Your task to perform on an android device: toggle data saver in the chrome app Image 0: 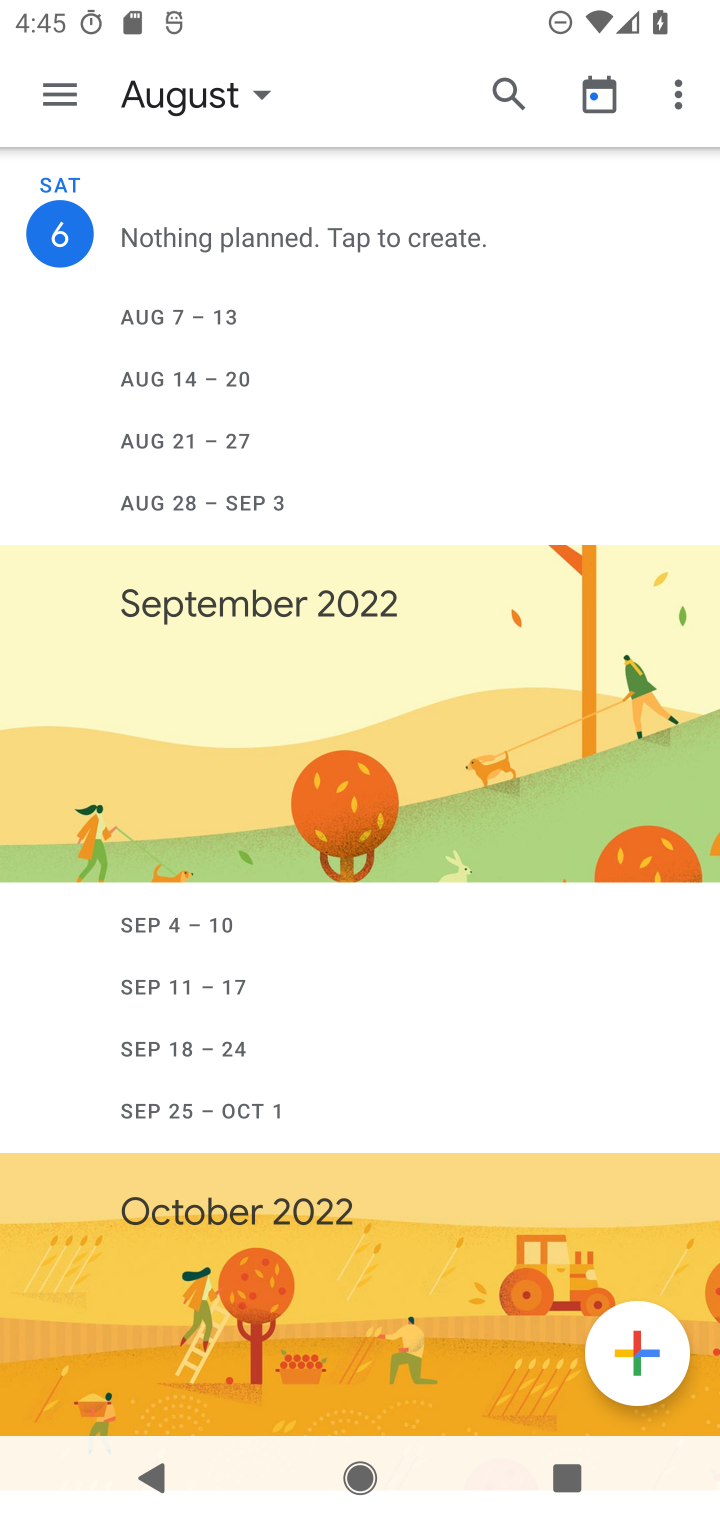
Step 0: press home button
Your task to perform on an android device: toggle data saver in the chrome app Image 1: 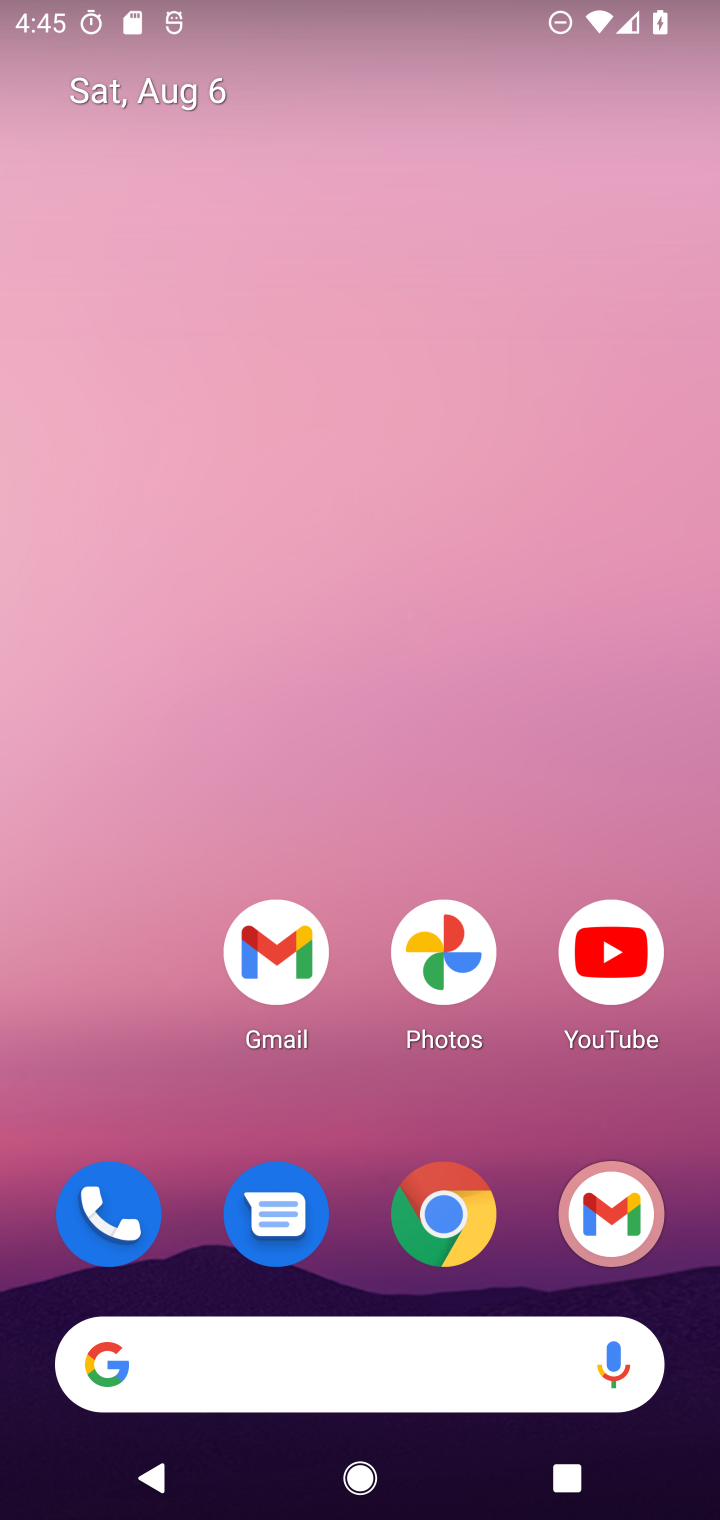
Step 1: click (449, 1201)
Your task to perform on an android device: toggle data saver in the chrome app Image 2: 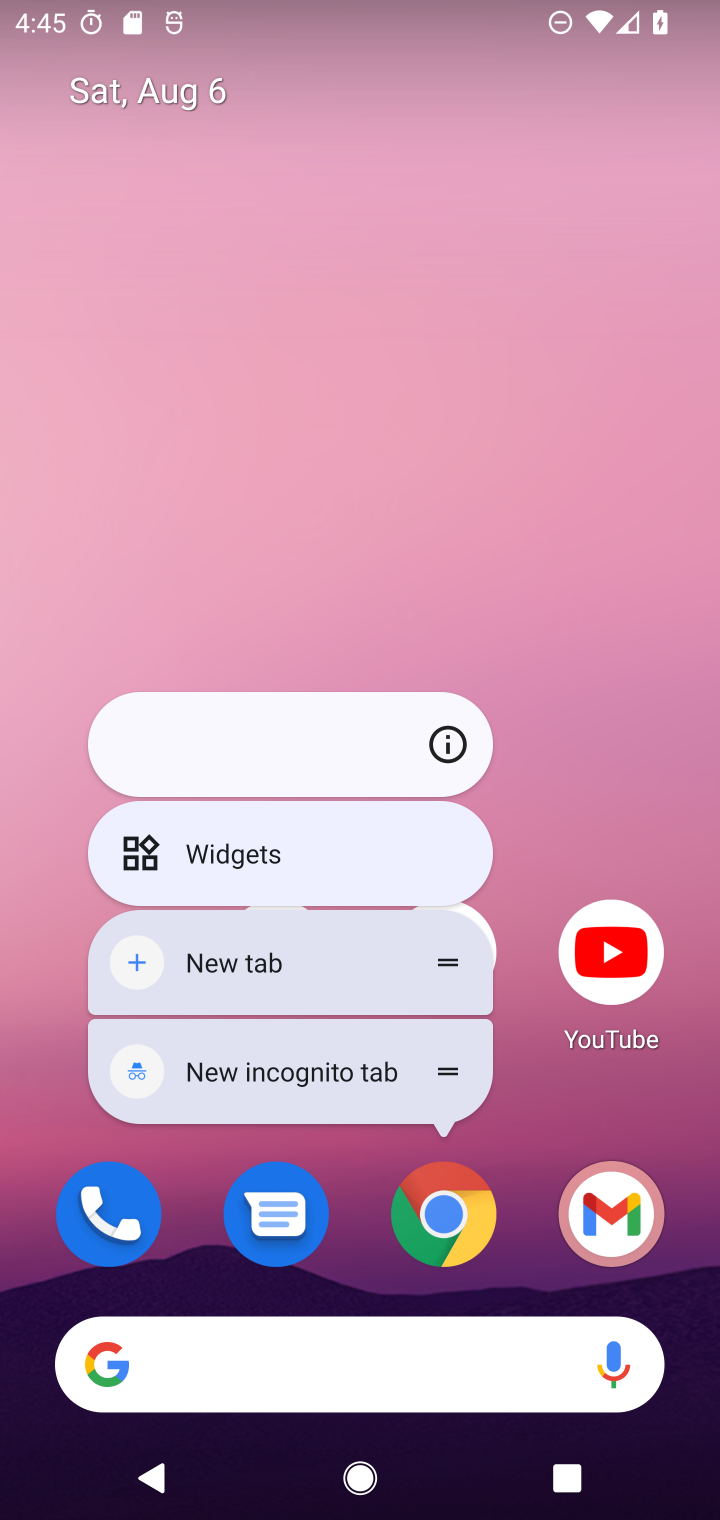
Step 2: click (434, 1225)
Your task to perform on an android device: toggle data saver in the chrome app Image 3: 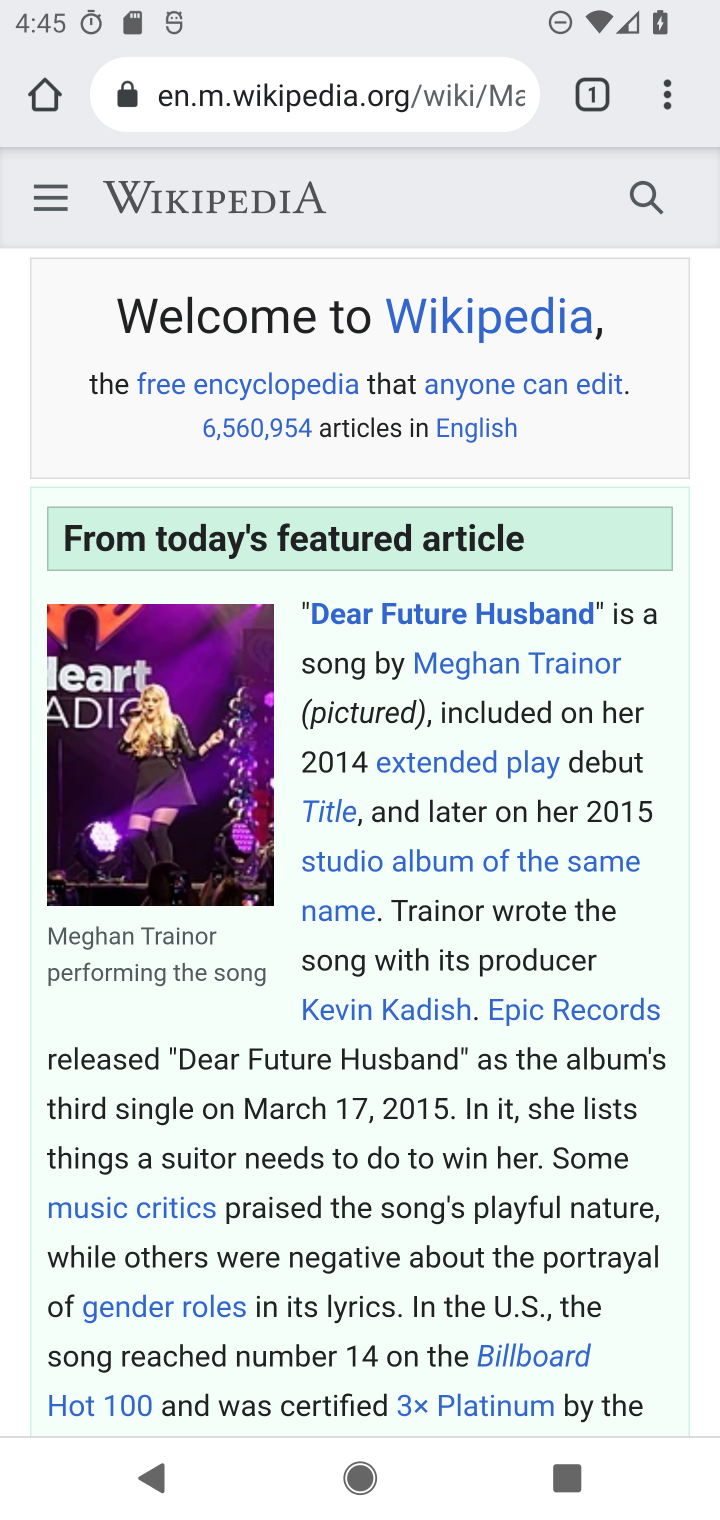
Step 3: click (660, 89)
Your task to perform on an android device: toggle data saver in the chrome app Image 4: 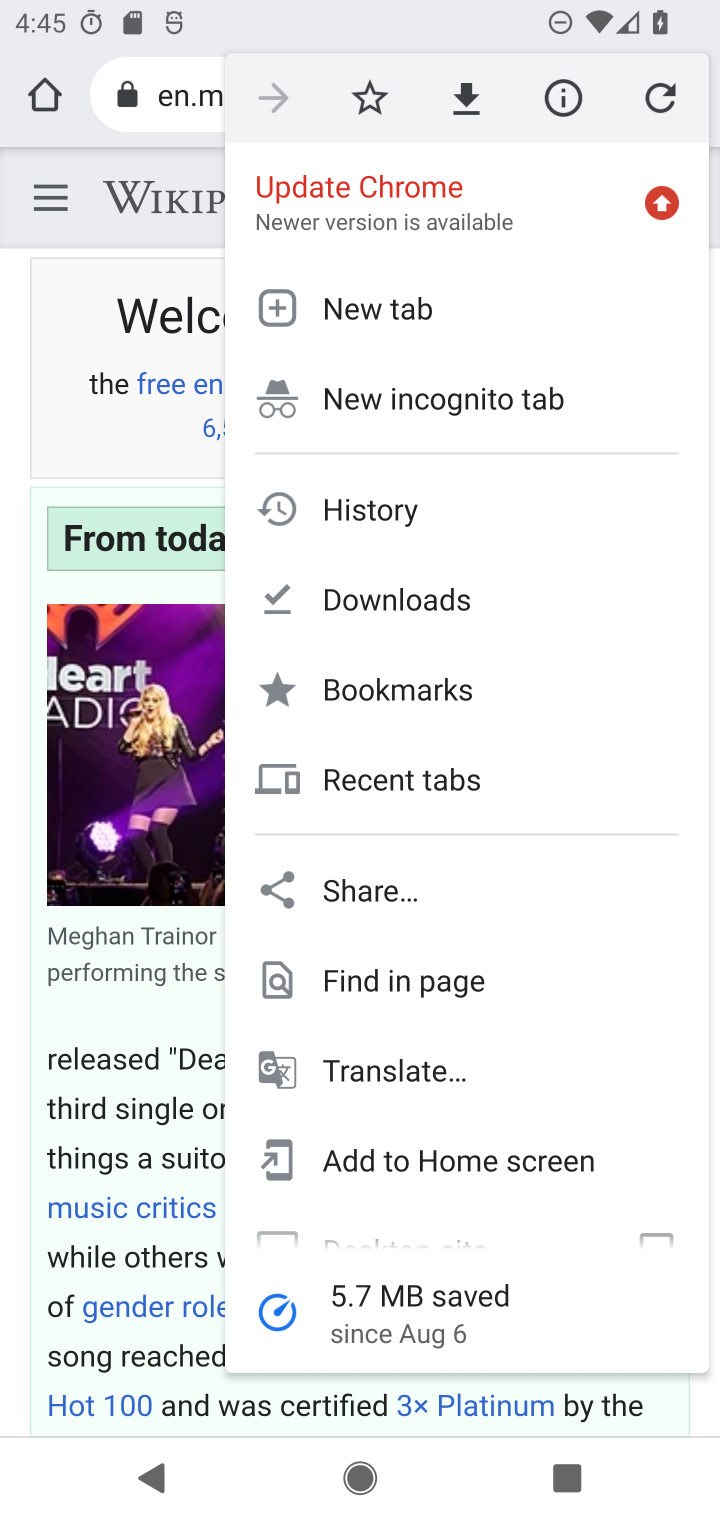
Step 4: drag from (469, 928) to (470, 839)
Your task to perform on an android device: toggle data saver in the chrome app Image 5: 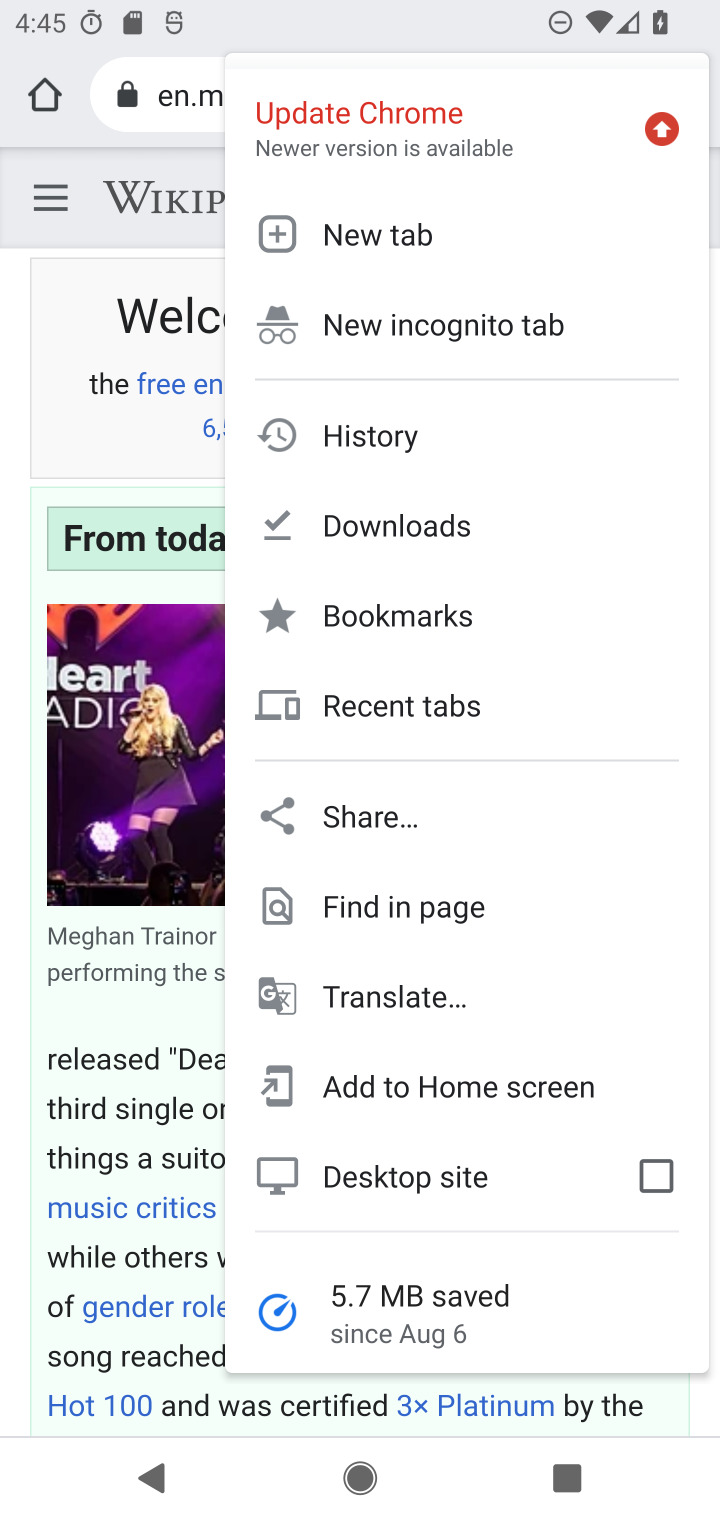
Step 5: drag from (490, 1149) to (490, 836)
Your task to perform on an android device: toggle data saver in the chrome app Image 6: 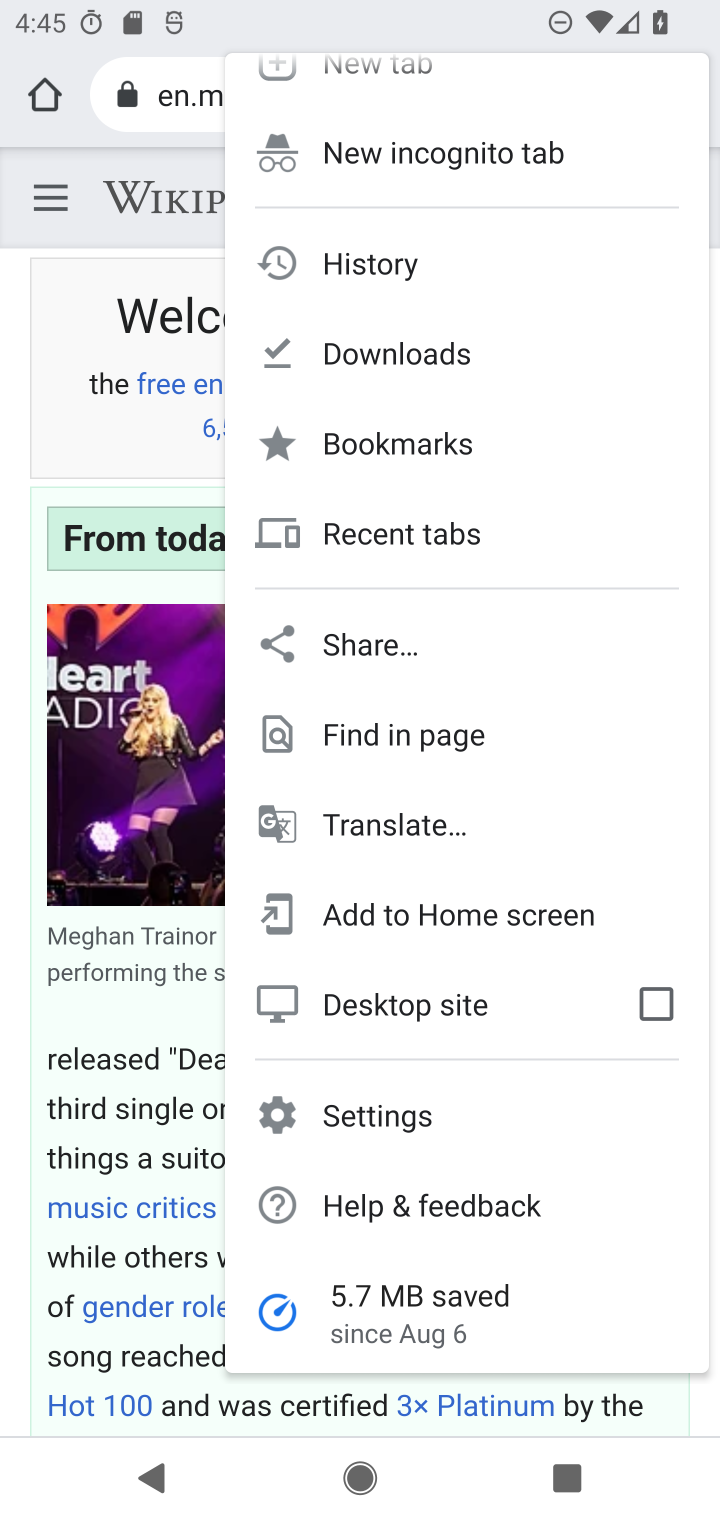
Step 6: click (366, 1114)
Your task to perform on an android device: toggle data saver in the chrome app Image 7: 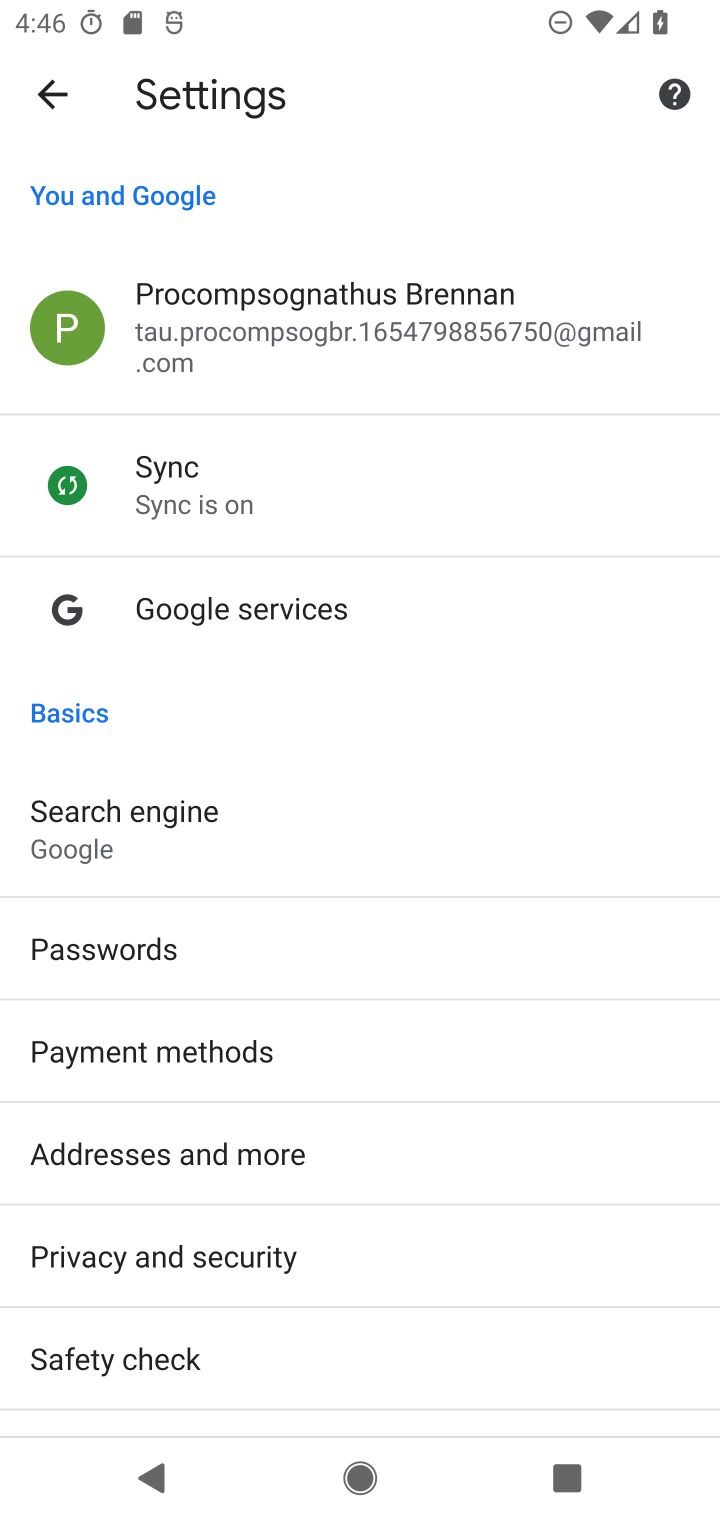
Step 7: drag from (175, 1284) to (284, 746)
Your task to perform on an android device: toggle data saver in the chrome app Image 8: 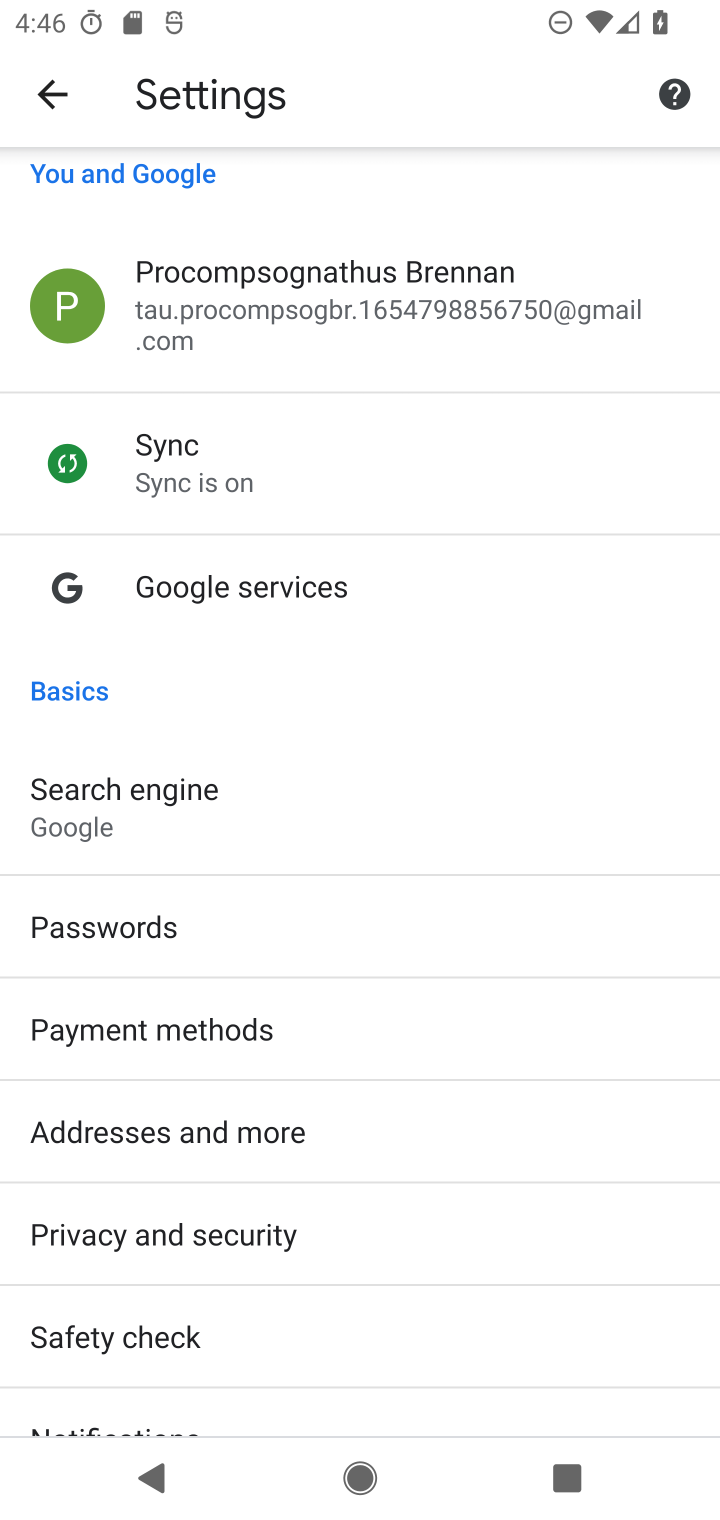
Step 8: drag from (218, 1260) to (235, 823)
Your task to perform on an android device: toggle data saver in the chrome app Image 9: 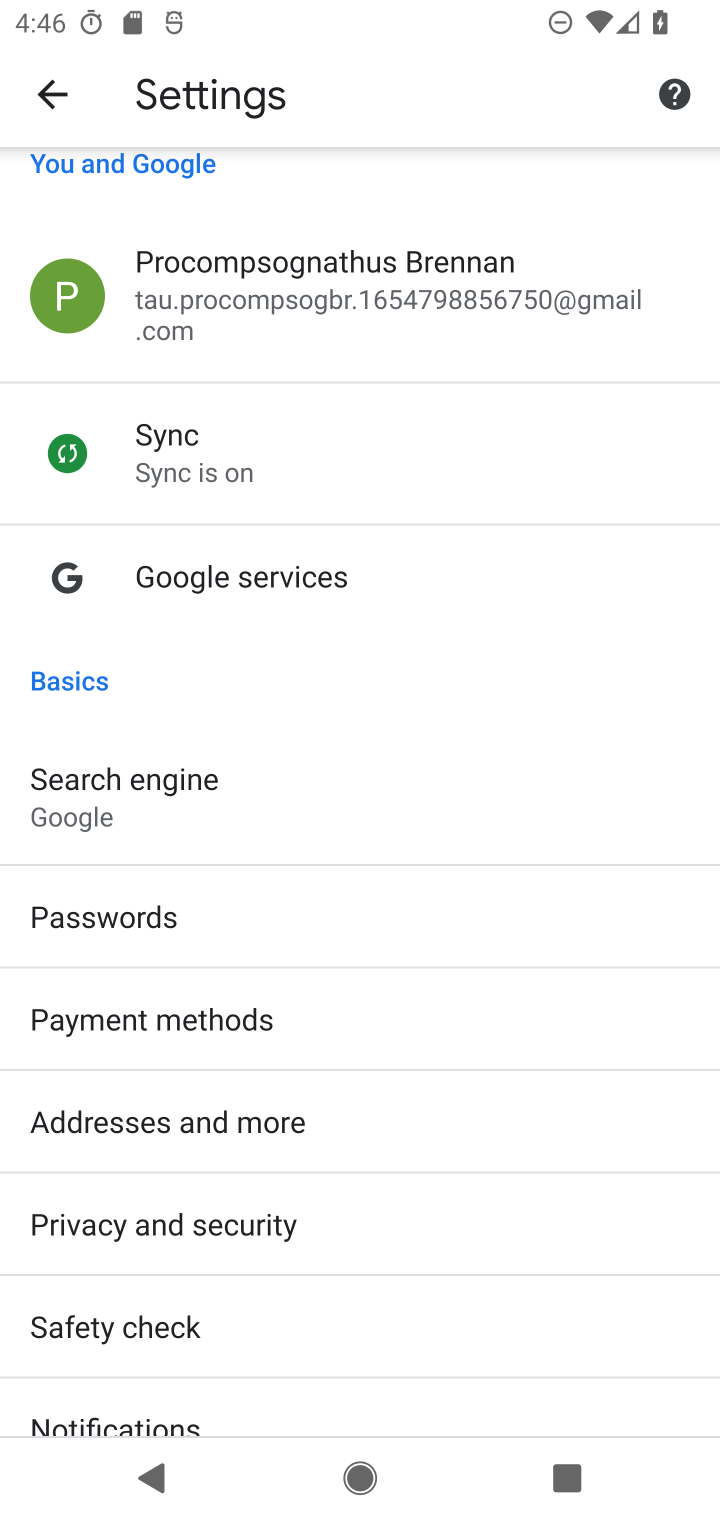
Step 9: click (294, 493)
Your task to perform on an android device: toggle data saver in the chrome app Image 10: 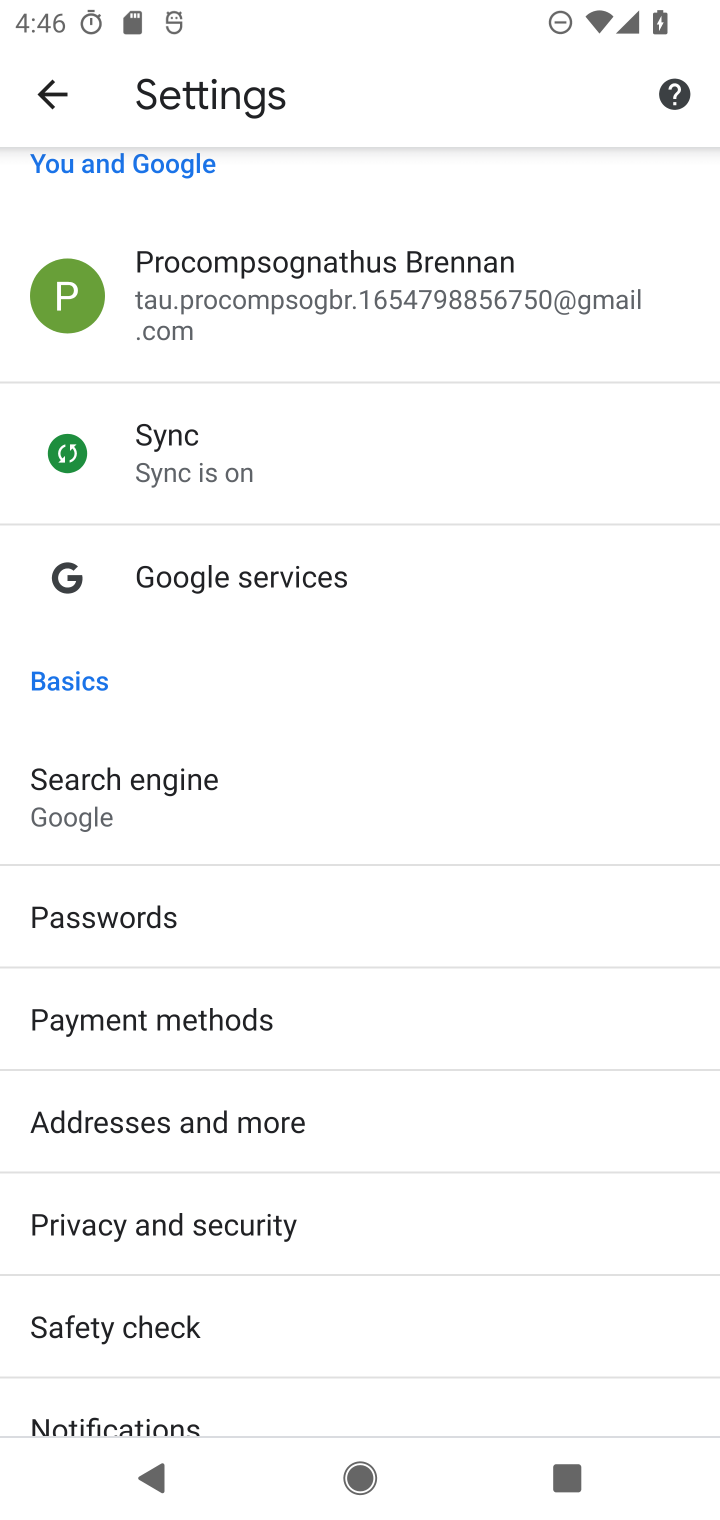
Step 10: drag from (267, 1189) to (267, 528)
Your task to perform on an android device: toggle data saver in the chrome app Image 11: 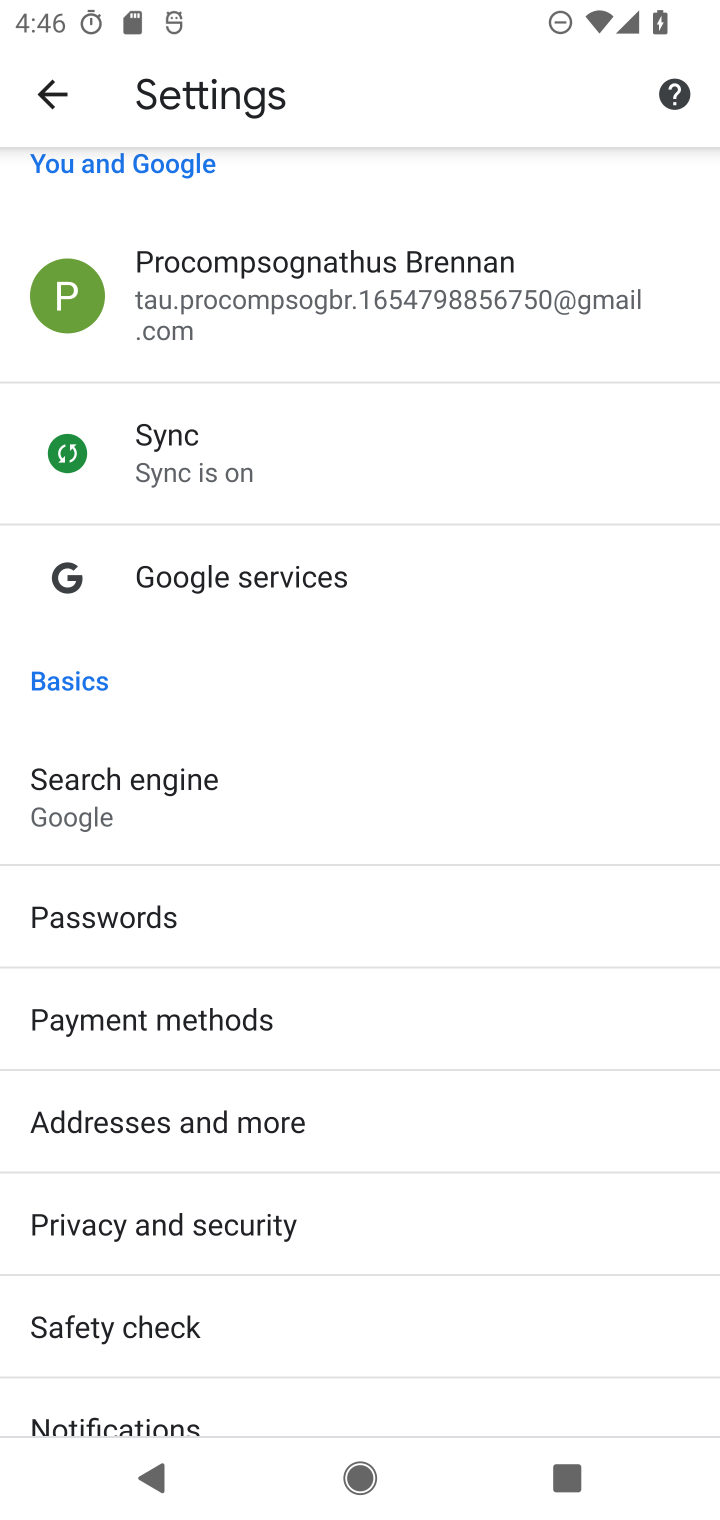
Step 11: drag from (191, 1167) to (192, 639)
Your task to perform on an android device: toggle data saver in the chrome app Image 12: 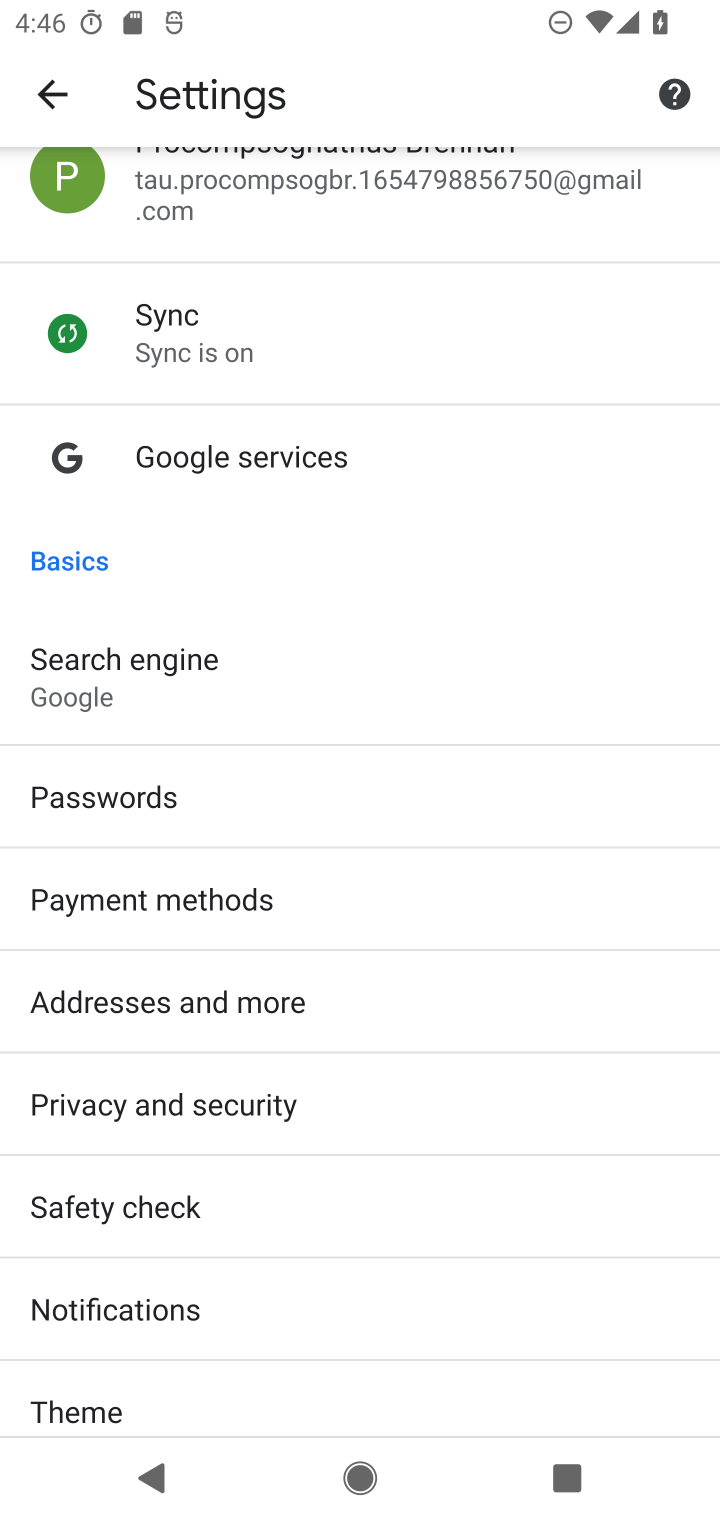
Step 12: drag from (175, 1115) to (178, 650)
Your task to perform on an android device: toggle data saver in the chrome app Image 13: 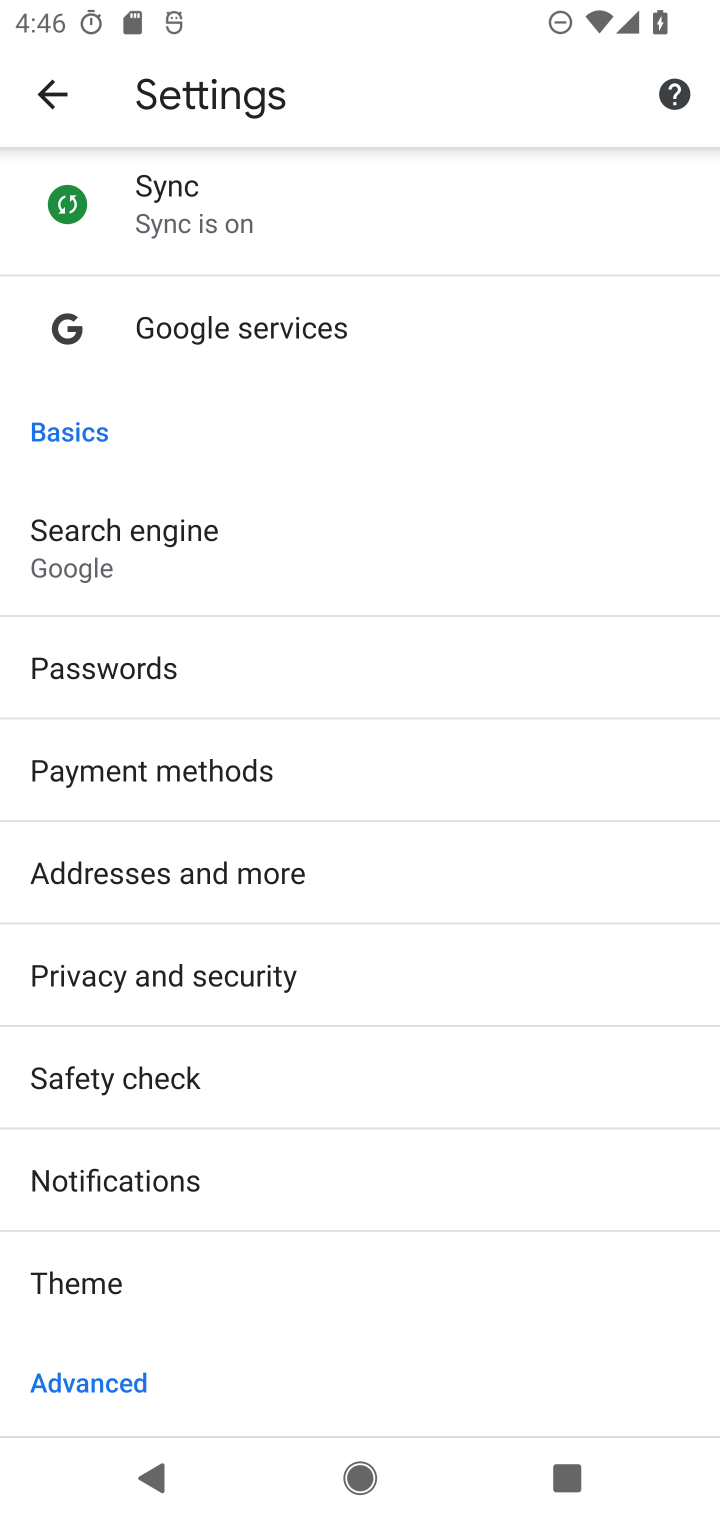
Step 13: click (209, 811)
Your task to perform on an android device: toggle data saver in the chrome app Image 14: 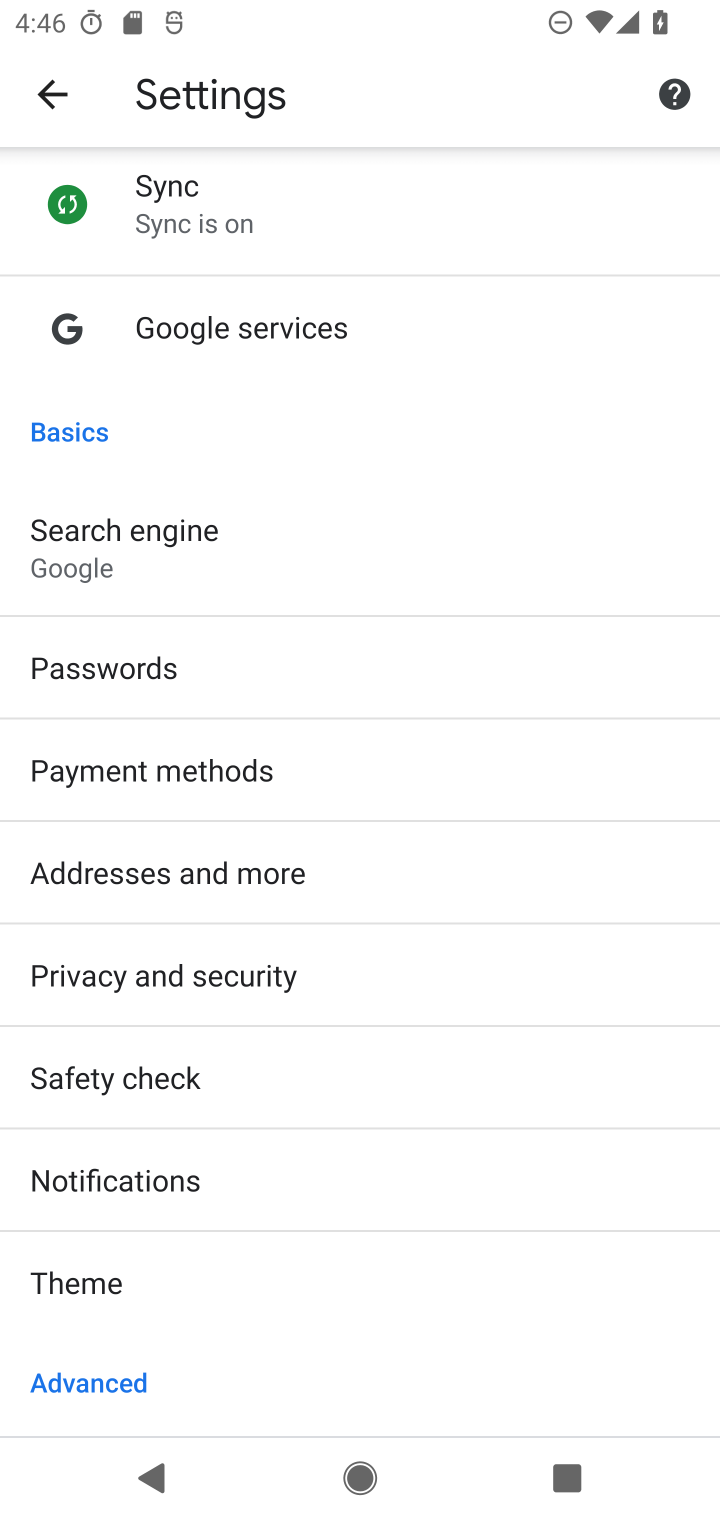
Step 14: drag from (271, 1129) to (303, 578)
Your task to perform on an android device: toggle data saver in the chrome app Image 15: 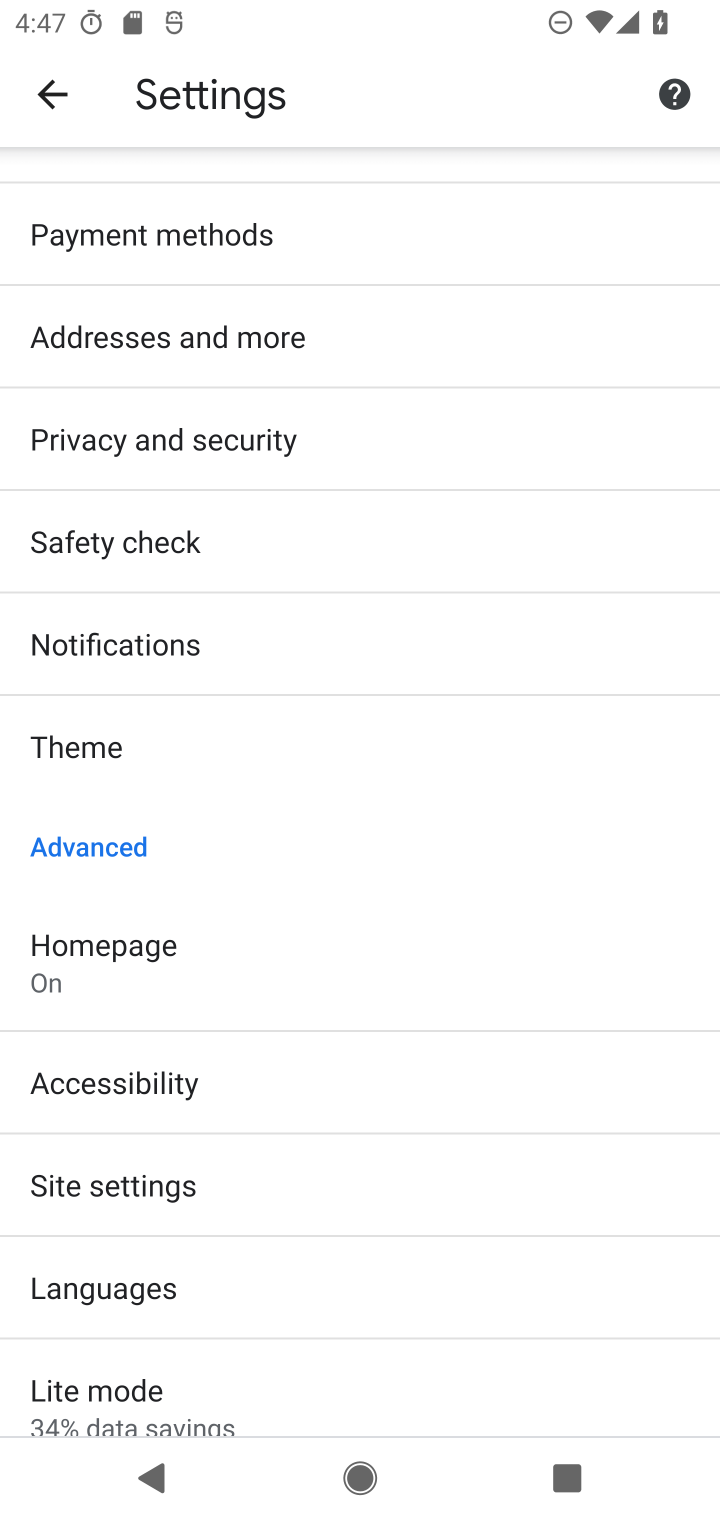
Step 15: click (171, 1414)
Your task to perform on an android device: toggle data saver in the chrome app Image 16: 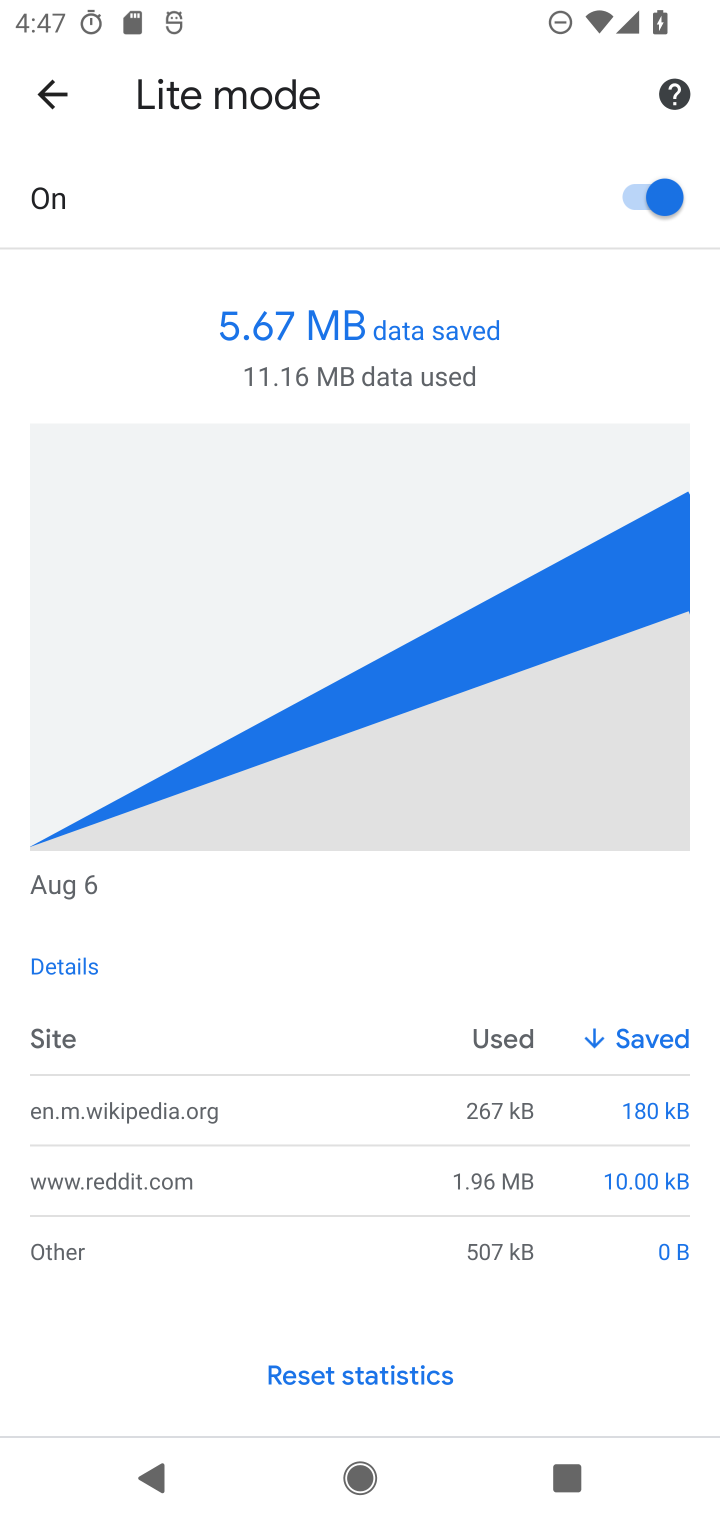
Step 16: click (645, 204)
Your task to perform on an android device: toggle data saver in the chrome app Image 17: 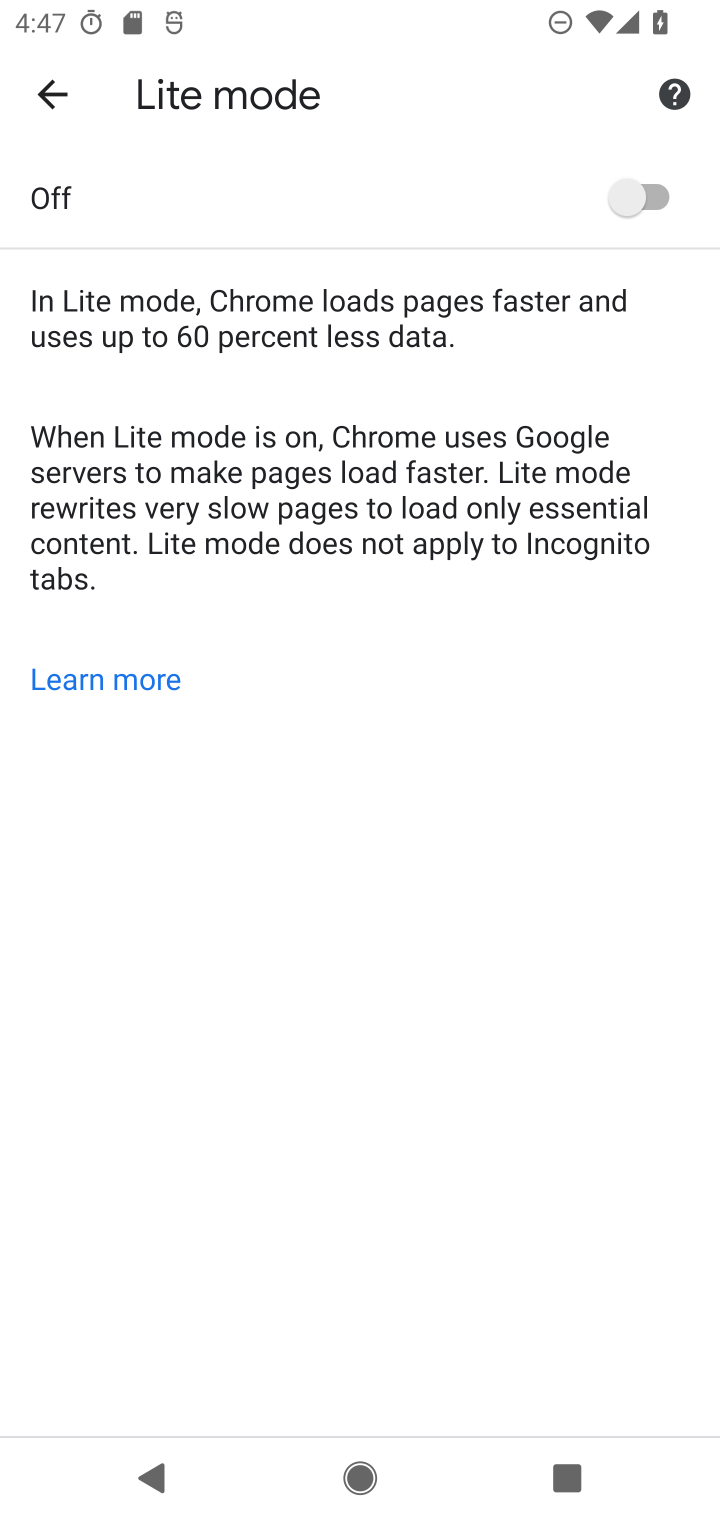
Step 17: task complete